Your task to perform on an android device: Open calendar and show me the first week of next month Image 0: 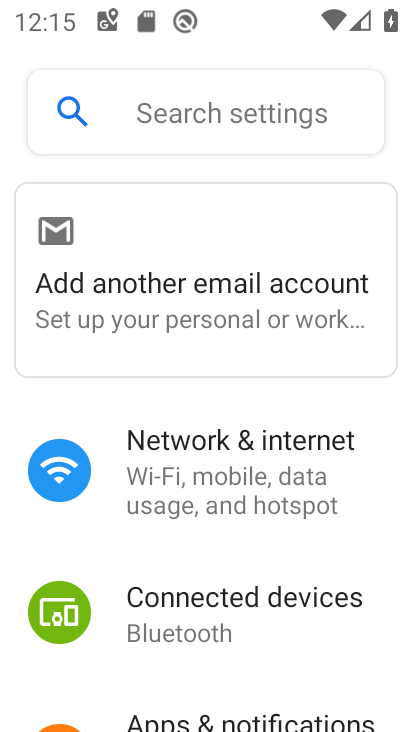
Step 0: press back button
Your task to perform on an android device: Open calendar and show me the first week of next month Image 1: 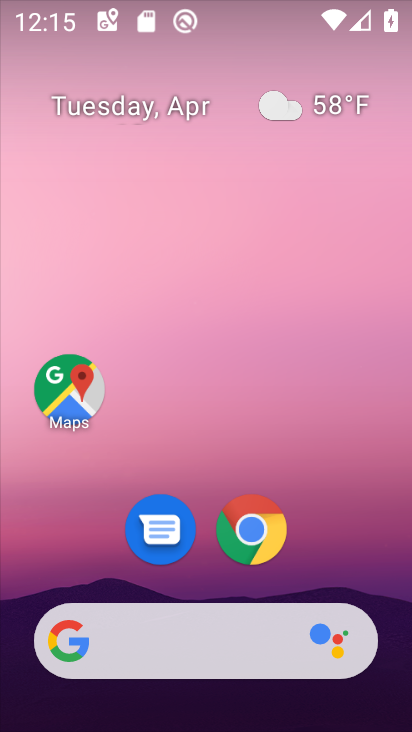
Step 1: drag from (210, 442) to (353, 117)
Your task to perform on an android device: Open calendar and show me the first week of next month Image 2: 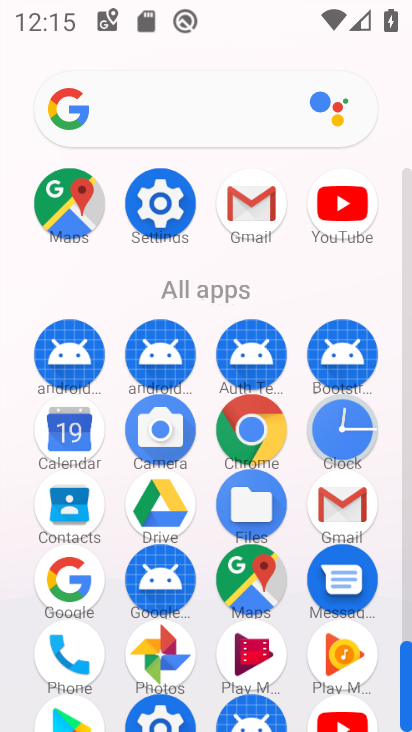
Step 2: click (82, 431)
Your task to perform on an android device: Open calendar and show me the first week of next month Image 3: 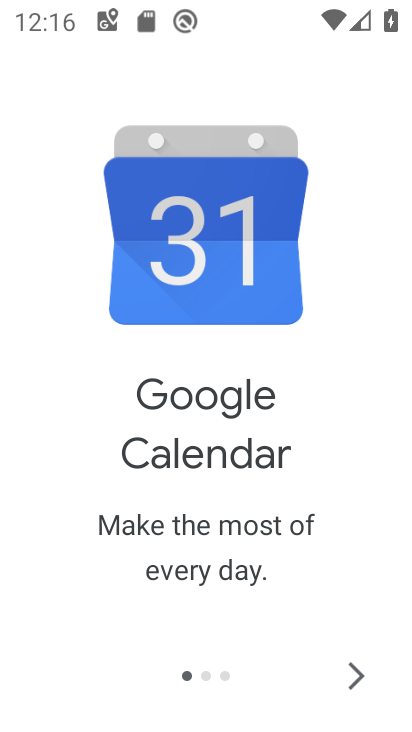
Step 3: click (364, 699)
Your task to perform on an android device: Open calendar and show me the first week of next month Image 4: 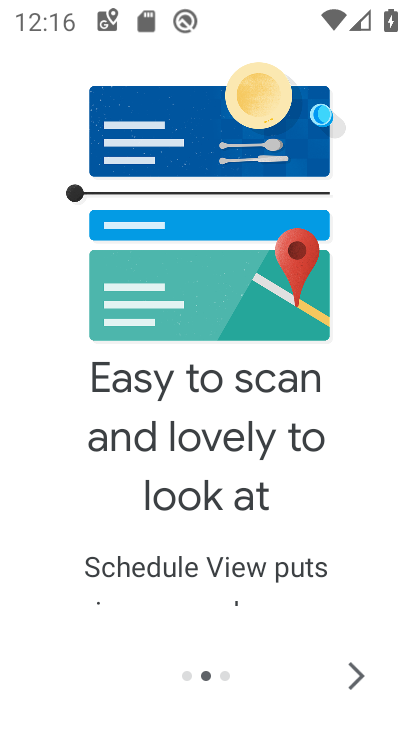
Step 4: click (359, 689)
Your task to perform on an android device: Open calendar and show me the first week of next month Image 5: 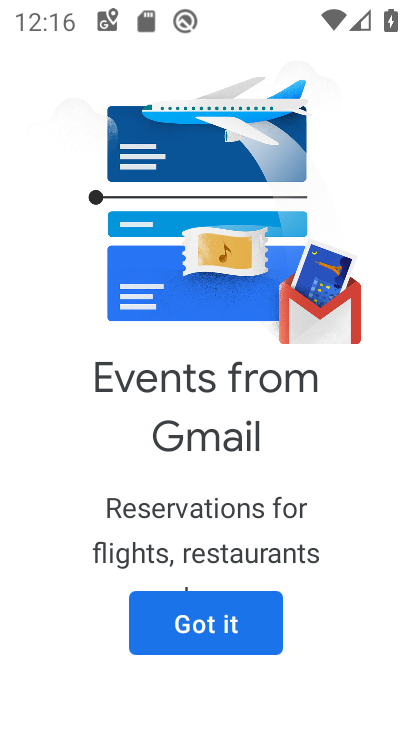
Step 5: click (222, 653)
Your task to perform on an android device: Open calendar and show me the first week of next month Image 6: 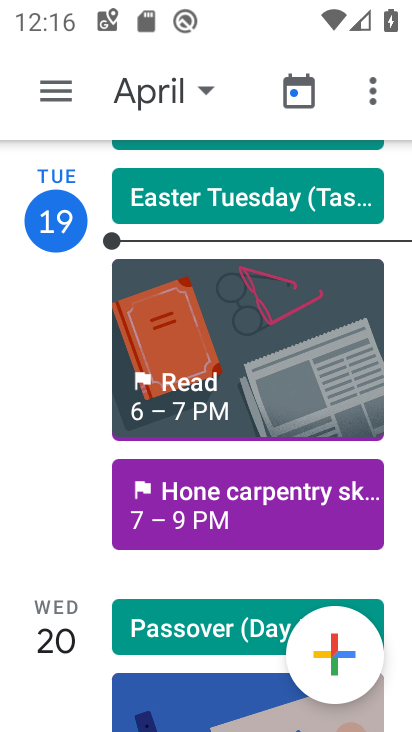
Step 6: click (164, 94)
Your task to perform on an android device: Open calendar and show me the first week of next month Image 7: 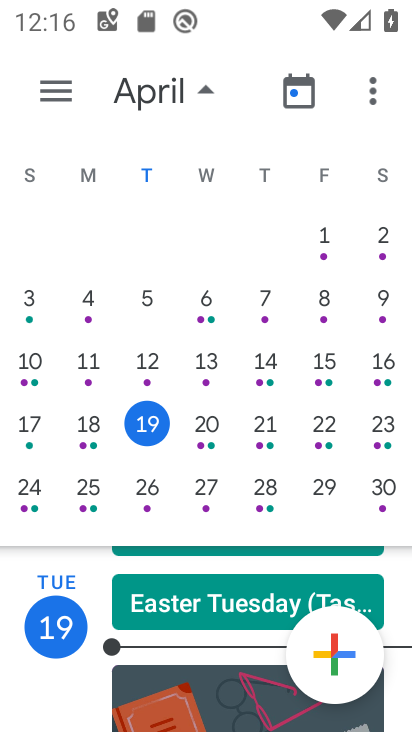
Step 7: drag from (358, 265) to (0, 285)
Your task to perform on an android device: Open calendar and show me the first week of next month Image 8: 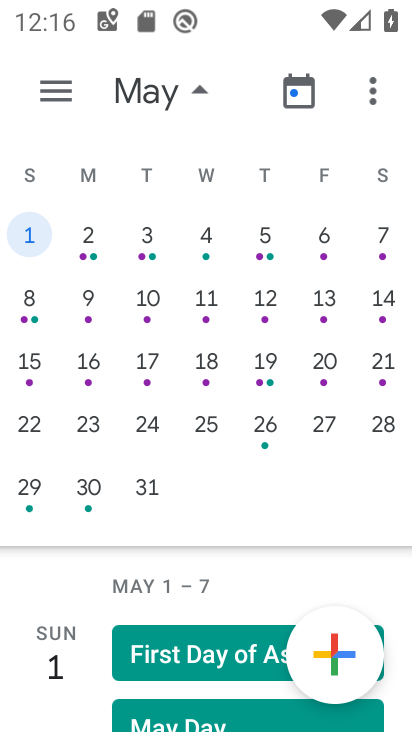
Step 8: click (36, 243)
Your task to perform on an android device: Open calendar and show me the first week of next month Image 9: 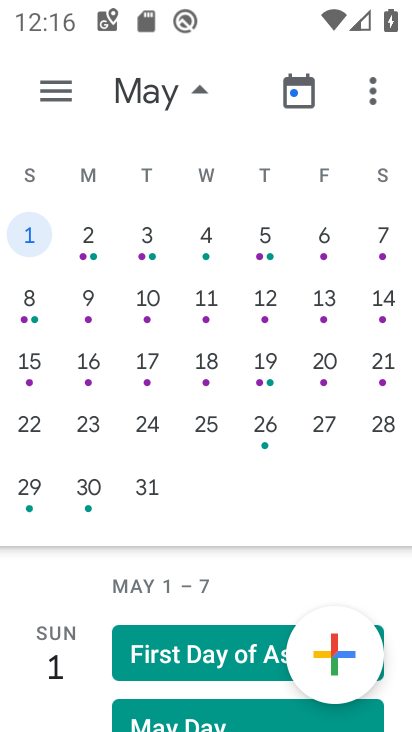
Step 9: click (78, 100)
Your task to perform on an android device: Open calendar and show me the first week of next month Image 10: 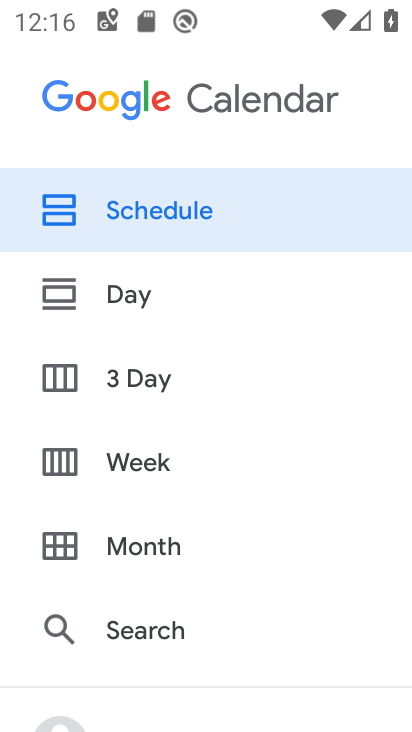
Step 10: click (176, 468)
Your task to perform on an android device: Open calendar and show me the first week of next month Image 11: 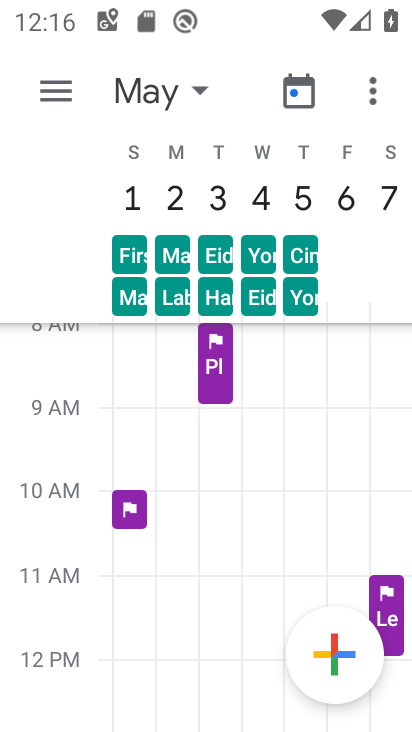
Step 11: task complete